Your task to perform on an android device: move an email to a new category in the gmail app Image 0: 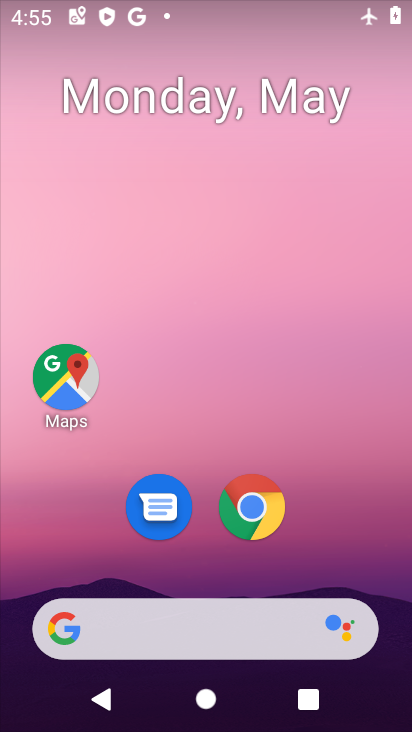
Step 0: drag from (379, 327) to (369, 12)
Your task to perform on an android device: move an email to a new category in the gmail app Image 1: 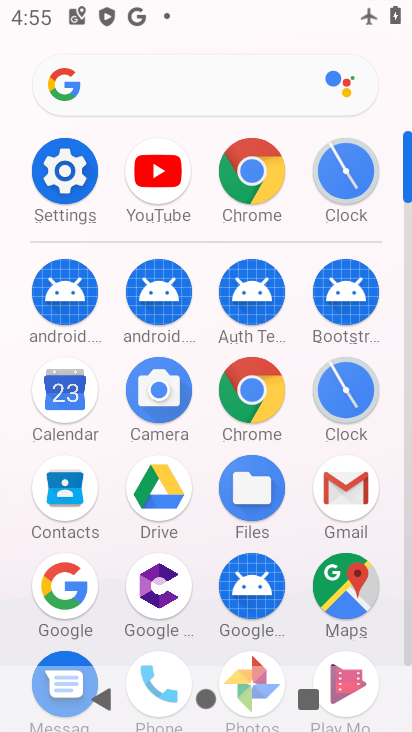
Step 1: click (350, 489)
Your task to perform on an android device: move an email to a new category in the gmail app Image 2: 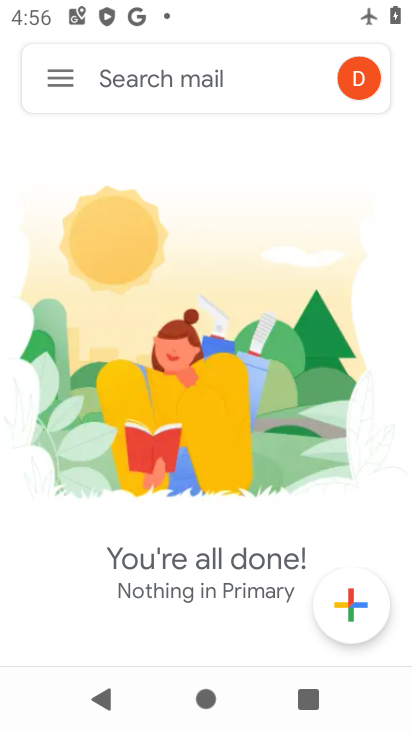
Step 2: click (57, 91)
Your task to perform on an android device: move an email to a new category in the gmail app Image 3: 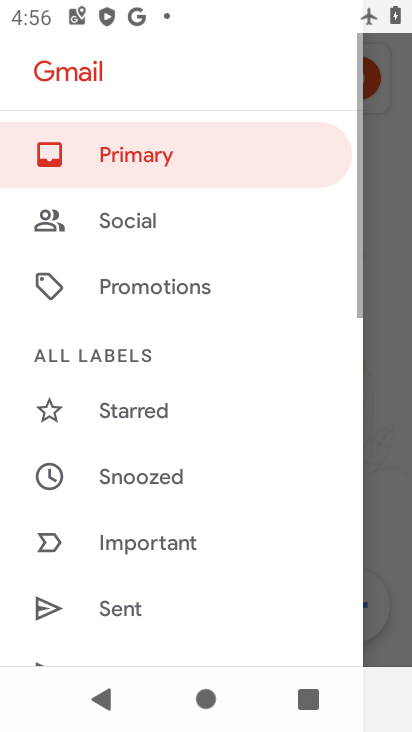
Step 3: drag from (177, 559) to (274, 190)
Your task to perform on an android device: move an email to a new category in the gmail app Image 4: 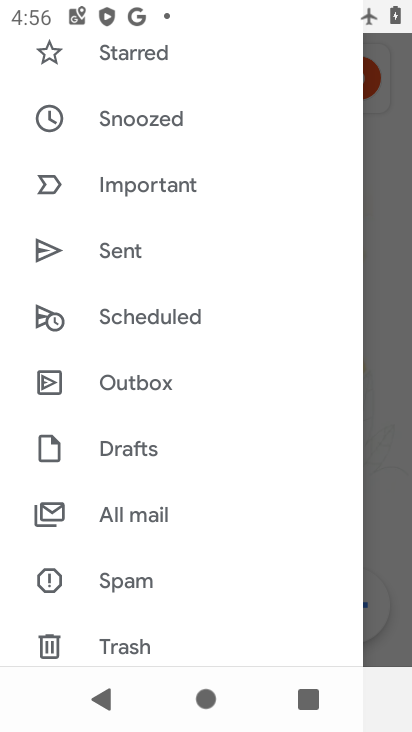
Step 4: click (94, 506)
Your task to perform on an android device: move an email to a new category in the gmail app Image 5: 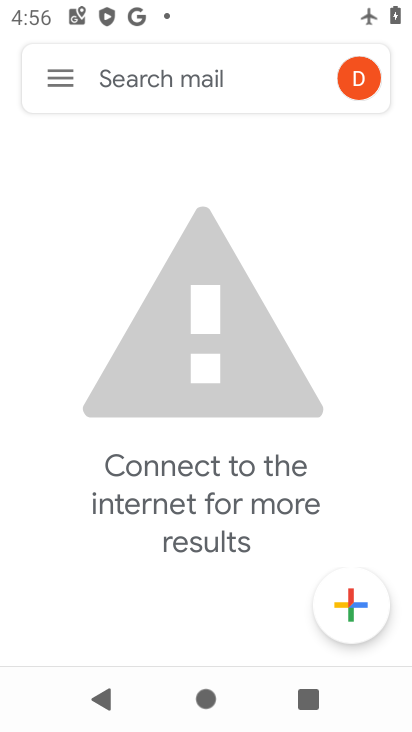
Step 5: task complete